Your task to perform on an android device: Open Chrome and go to settings Image 0: 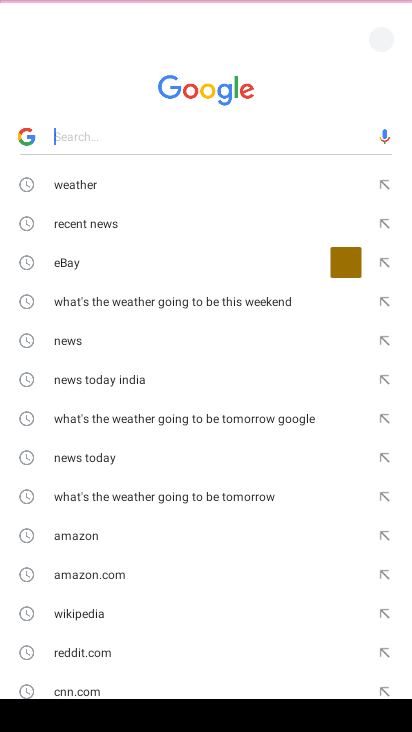
Step 0: click (258, 215)
Your task to perform on an android device: Open Chrome and go to settings Image 1: 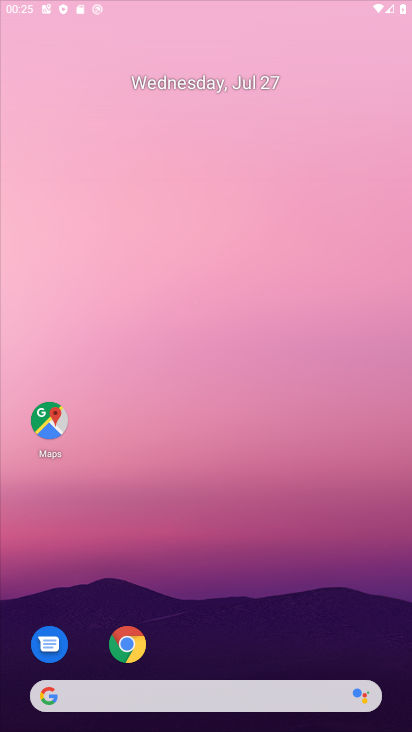
Step 1: drag from (263, 437) to (263, 23)
Your task to perform on an android device: Open Chrome and go to settings Image 2: 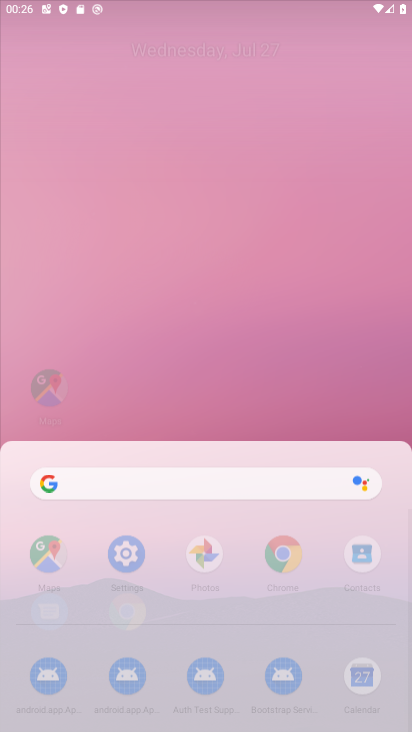
Step 2: drag from (245, 194) to (229, 91)
Your task to perform on an android device: Open Chrome and go to settings Image 3: 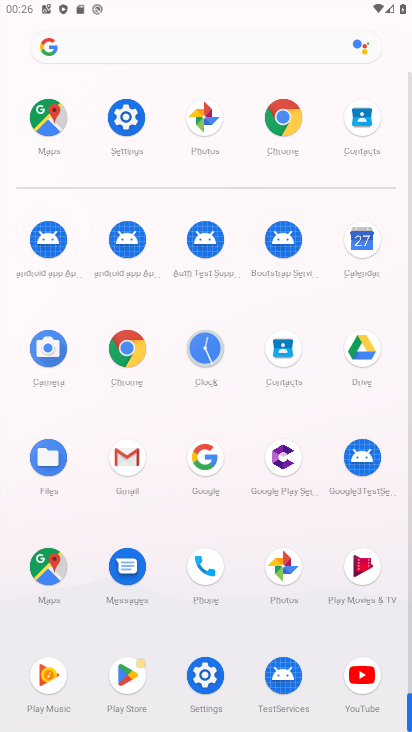
Step 3: drag from (164, 536) to (164, 181)
Your task to perform on an android device: Open Chrome and go to settings Image 4: 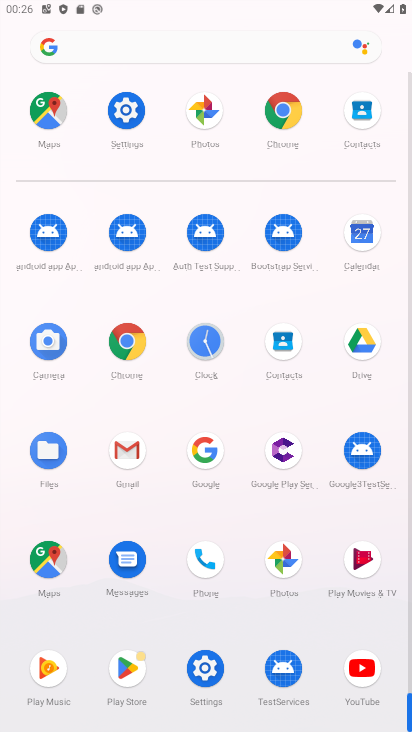
Step 4: click (129, 114)
Your task to perform on an android device: Open Chrome and go to settings Image 5: 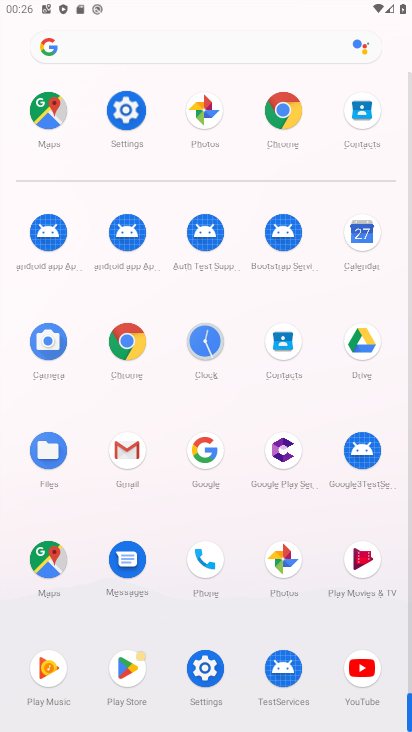
Step 5: click (128, 113)
Your task to perform on an android device: Open Chrome and go to settings Image 6: 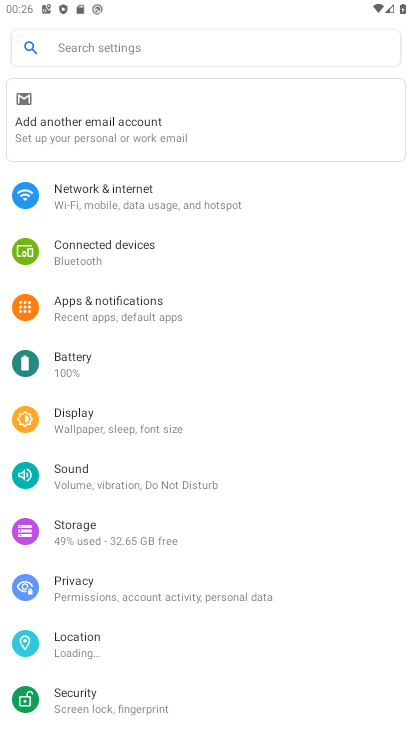
Step 6: press back button
Your task to perform on an android device: Open Chrome and go to settings Image 7: 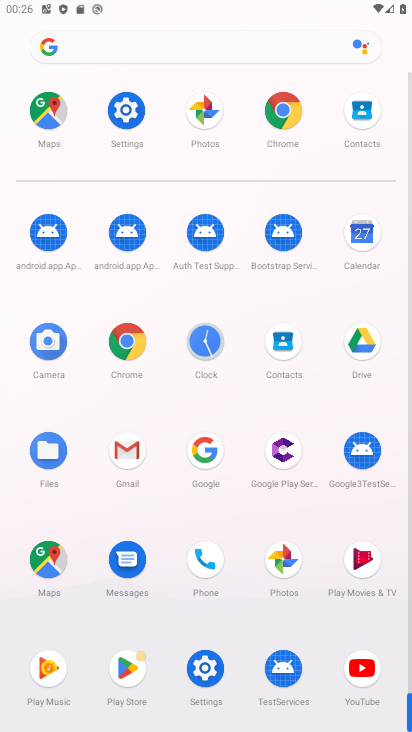
Step 7: press back button
Your task to perform on an android device: Open Chrome and go to settings Image 8: 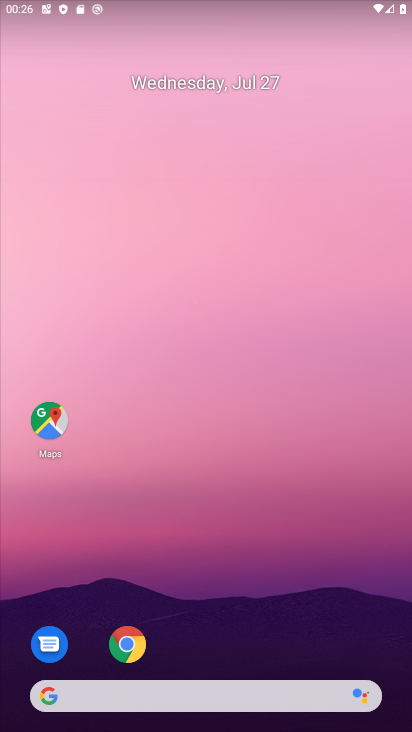
Step 8: drag from (272, 680) to (215, 121)
Your task to perform on an android device: Open Chrome and go to settings Image 9: 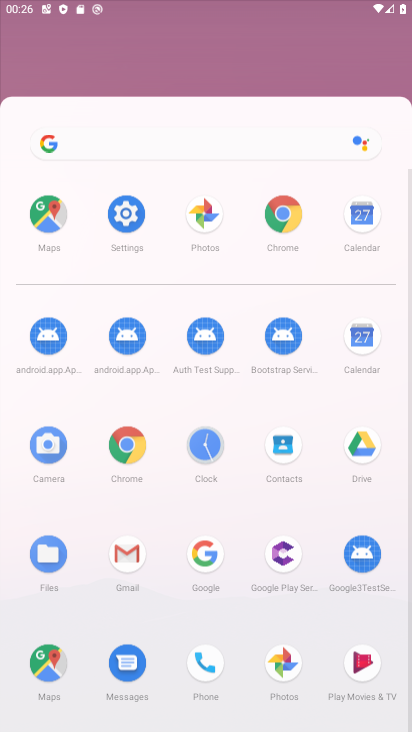
Step 9: drag from (243, 415) to (240, 123)
Your task to perform on an android device: Open Chrome and go to settings Image 10: 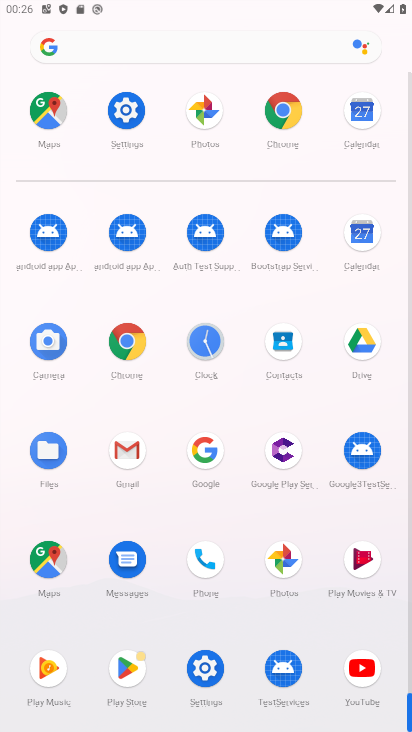
Step 10: click (119, 109)
Your task to perform on an android device: Open Chrome and go to settings Image 11: 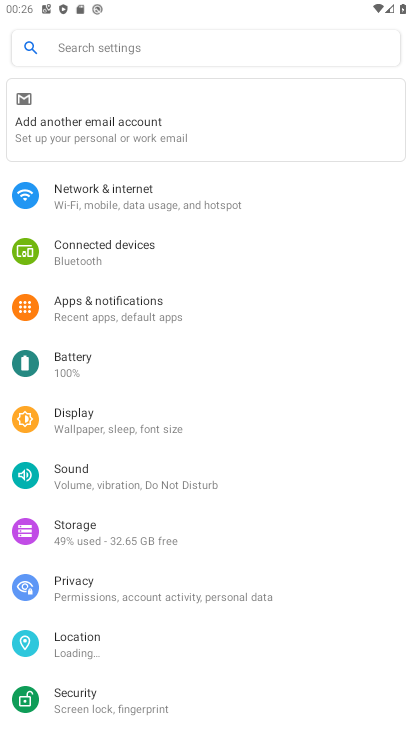
Step 11: press back button
Your task to perform on an android device: Open Chrome and go to settings Image 12: 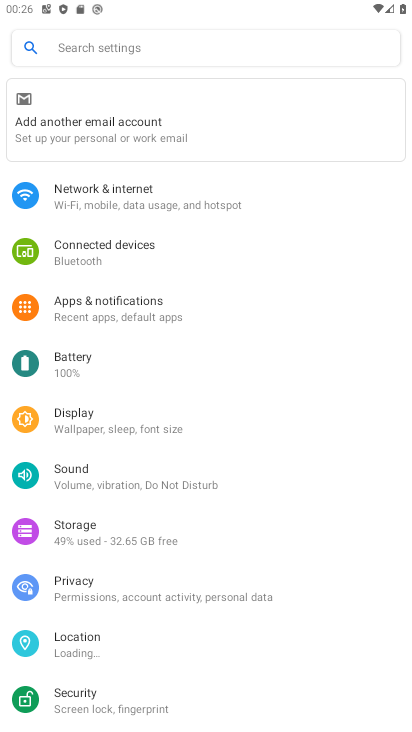
Step 12: press back button
Your task to perform on an android device: Open Chrome and go to settings Image 13: 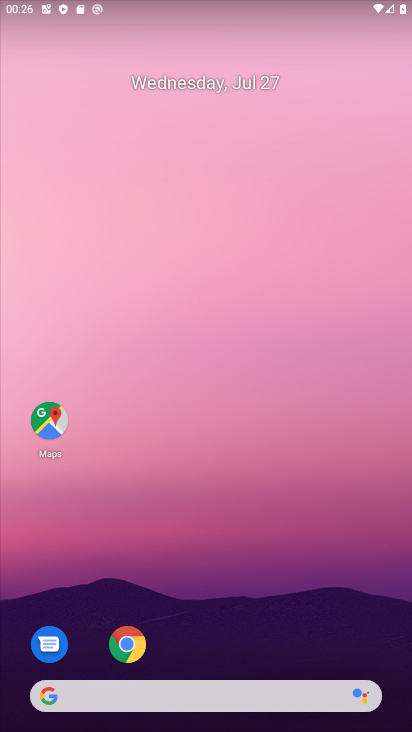
Step 13: drag from (290, 605) to (190, 50)
Your task to perform on an android device: Open Chrome and go to settings Image 14: 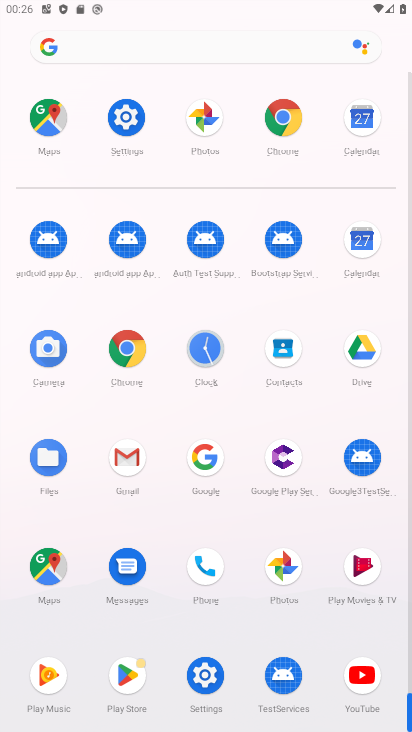
Step 14: click (121, 349)
Your task to perform on an android device: Open Chrome and go to settings Image 15: 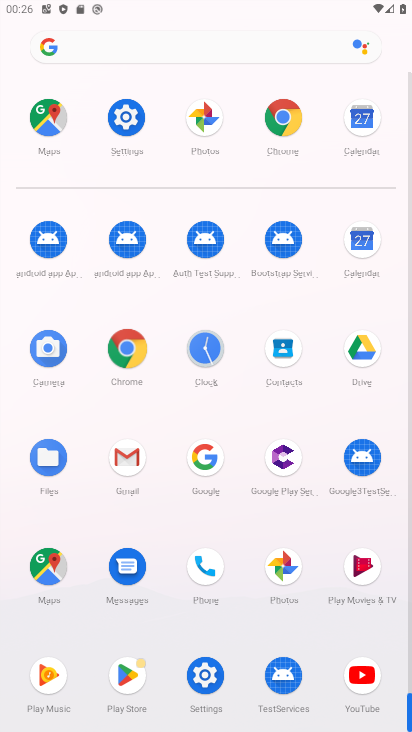
Step 15: click (121, 349)
Your task to perform on an android device: Open Chrome and go to settings Image 16: 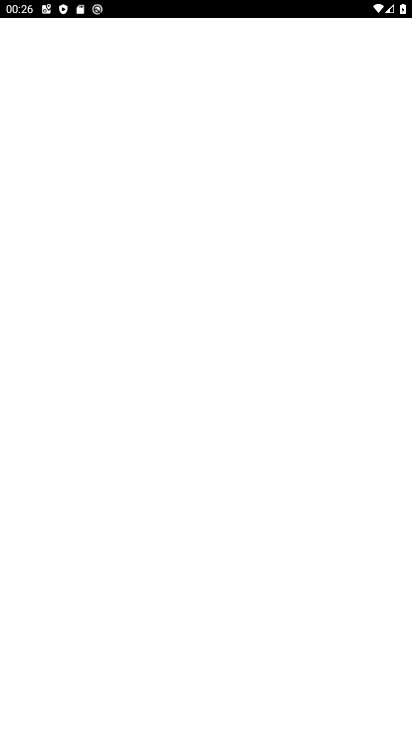
Step 16: click (123, 347)
Your task to perform on an android device: Open Chrome and go to settings Image 17: 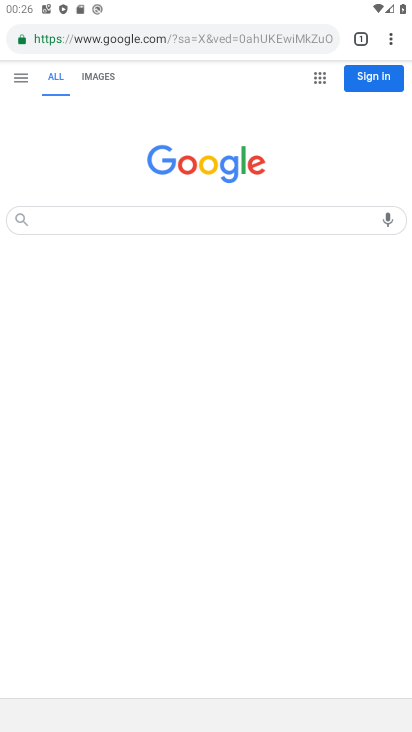
Step 17: drag from (391, 39) to (237, 435)
Your task to perform on an android device: Open Chrome and go to settings Image 18: 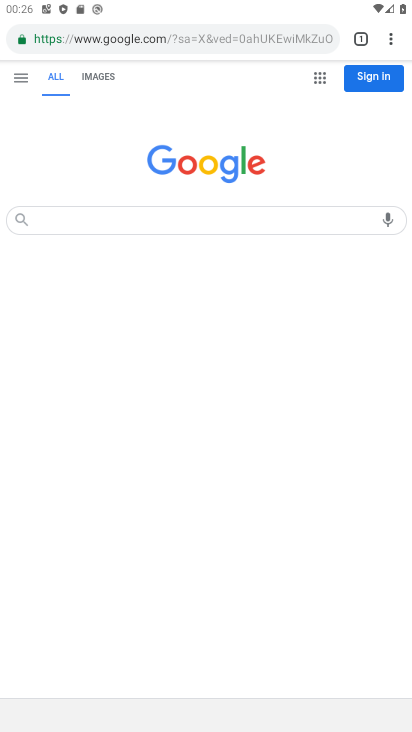
Step 18: click (237, 436)
Your task to perform on an android device: Open Chrome and go to settings Image 19: 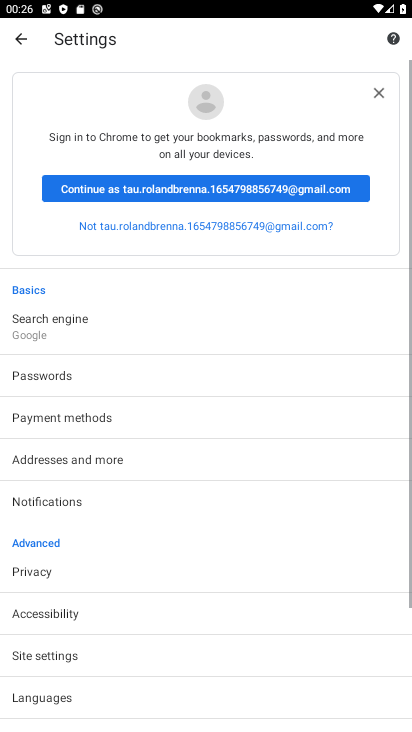
Step 19: task complete